Your task to perform on an android device: Open Android settings Image 0: 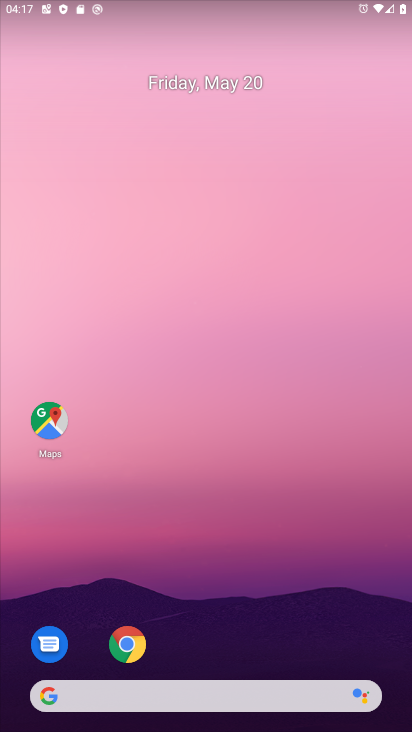
Step 0: drag from (299, 624) to (216, 126)
Your task to perform on an android device: Open Android settings Image 1: 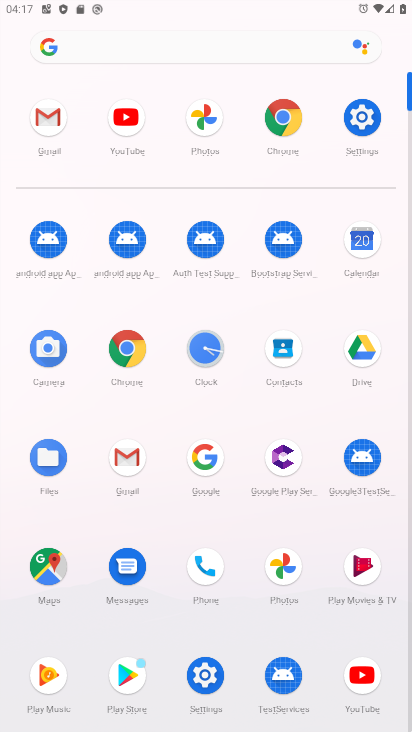
Step 1: click (350, 114)
Your task to perform on an android device: Open Android settings Image 2: 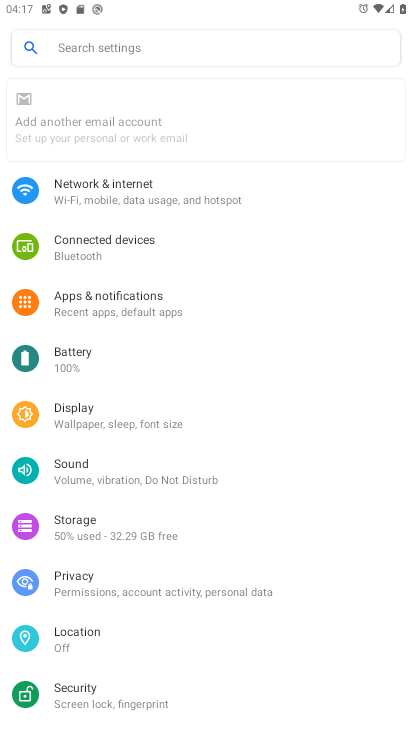
Step 2: task complete